Your task to perform on an android device: Open Chrome and go to the settings page Image 0: 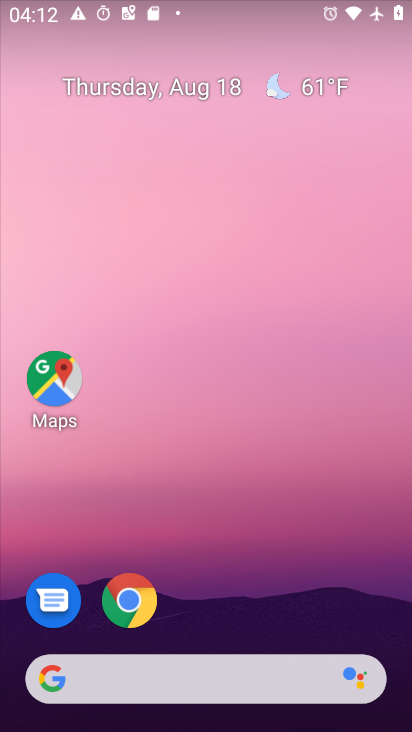
Step 0: press home button
Your task to perform on an android device: Open Chrome and go to the settings page Image 1: 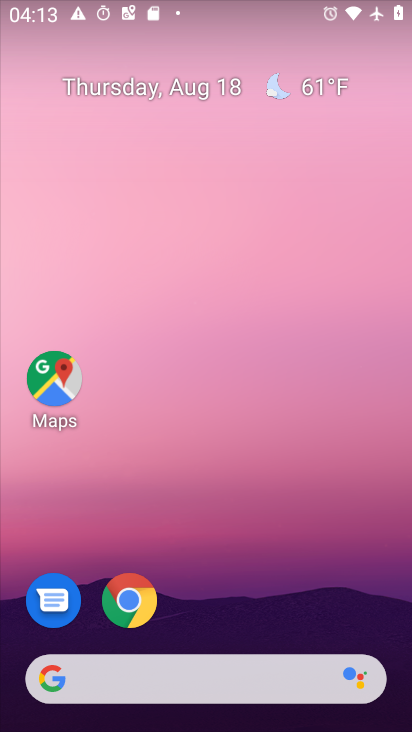
Step 1: click (137, 584)
Your task to perform on an android device: Open Chrome and go to the settings page Image 2: 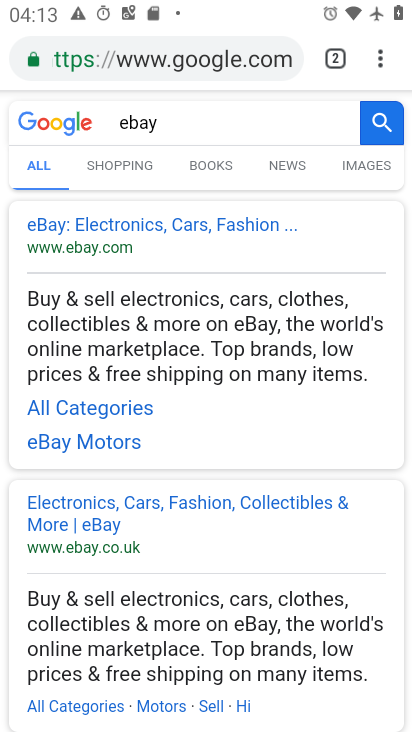
Step 2: task complete